Your task to perform on an android device: open app "NewsBreak: Local News & Alerts" Image 0: 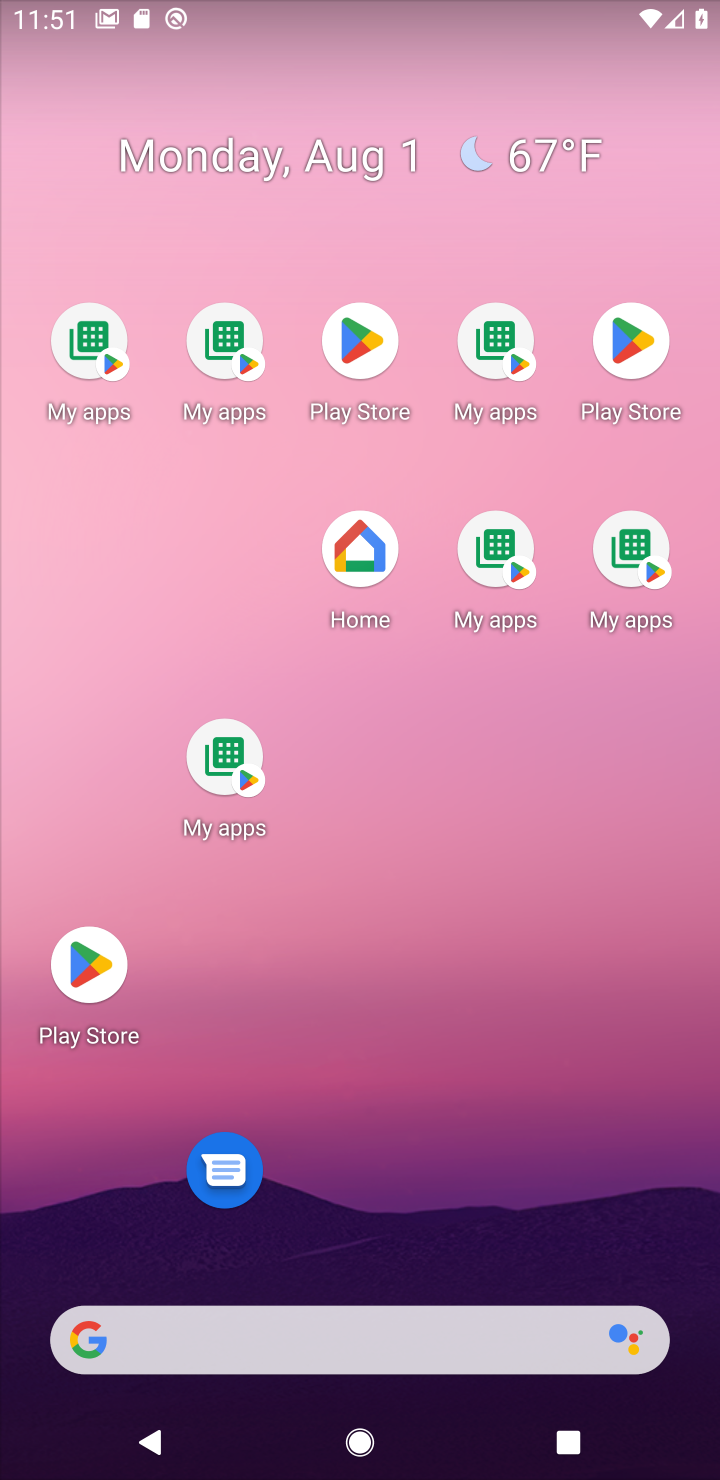
Step 0: drag from (313, 1220) to (369, 315)
Your task to perform on an android device: open app "NewsBreak: Local News & Alerts" Image 1: 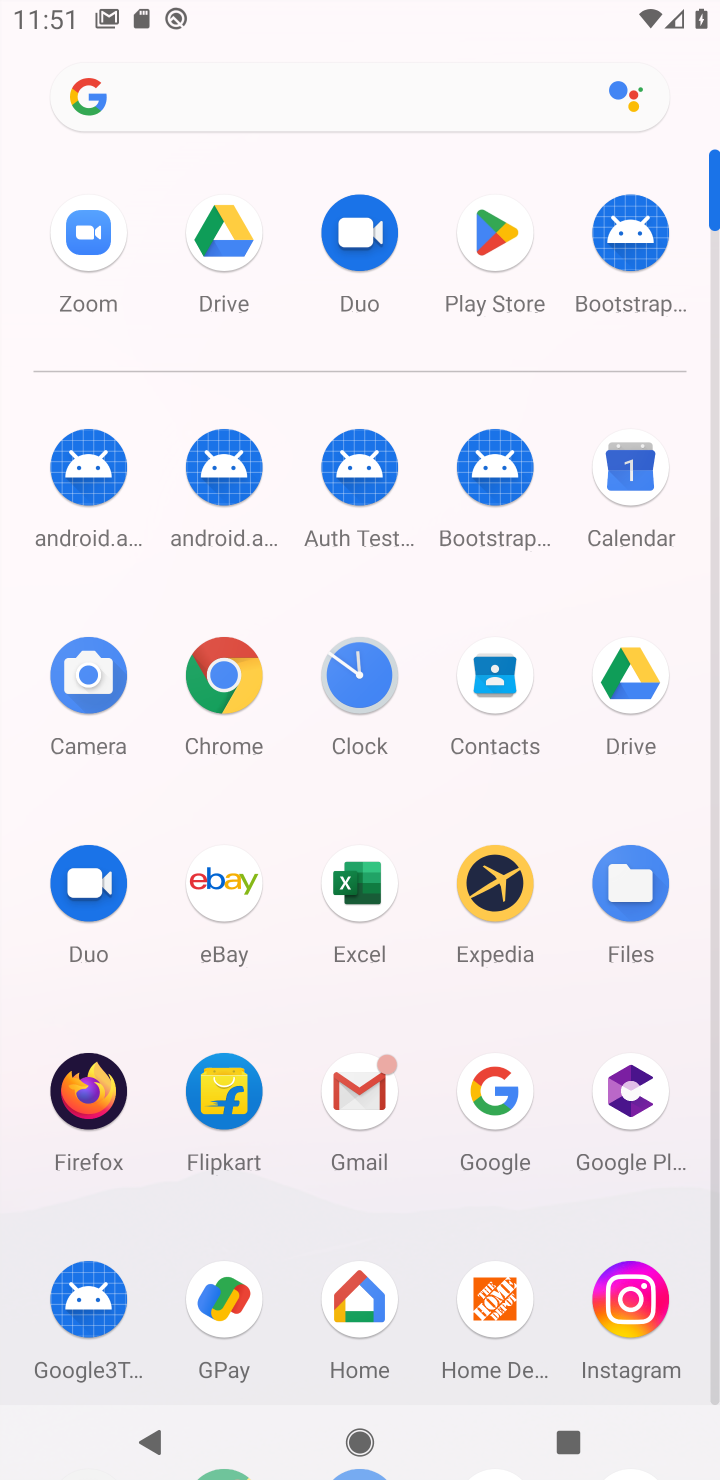
Step 1: click (508, 226)
Your task to perform on an android device: open app "NewsBreak: Local News & Alerts" Image 2: 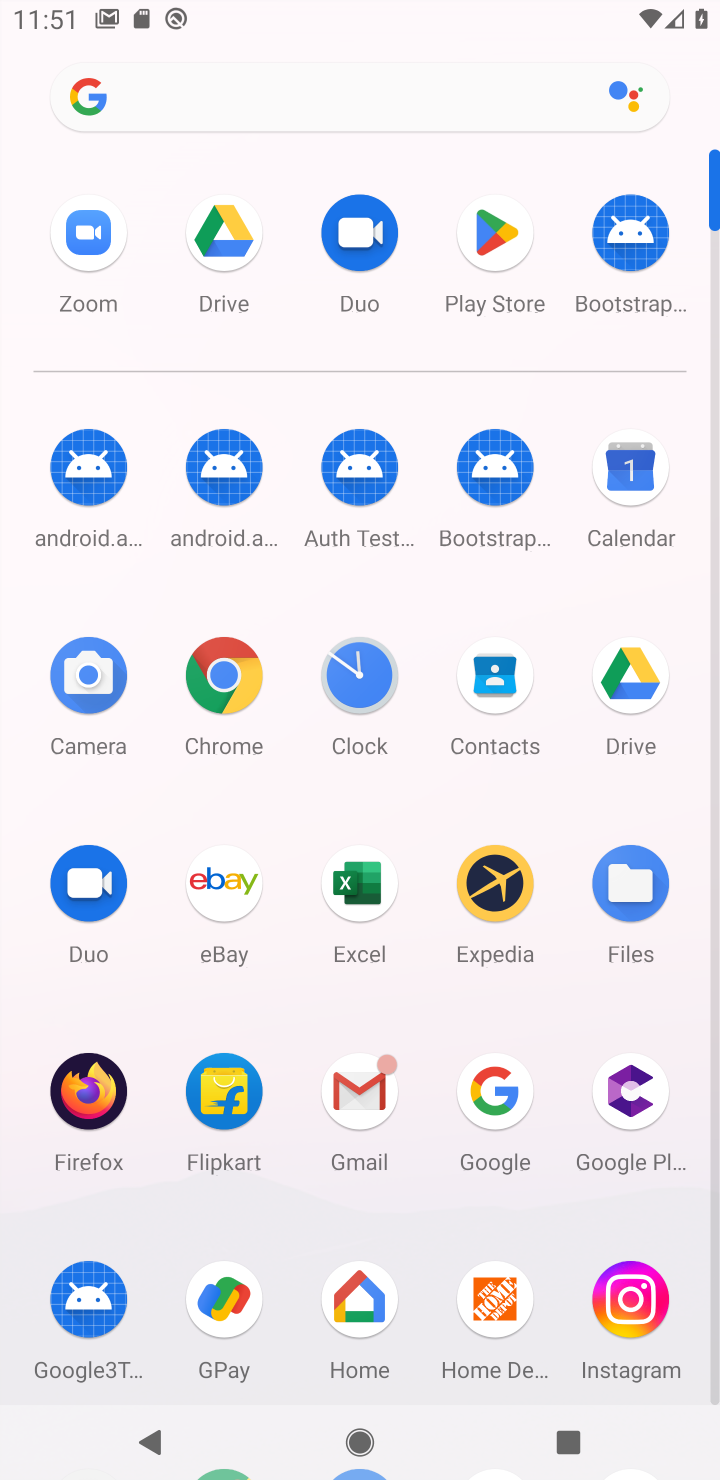
Step 2: click (508, 226)
Your task to perform on an android device: open app "NewsBreak: Local News & Alerts" Image 3: 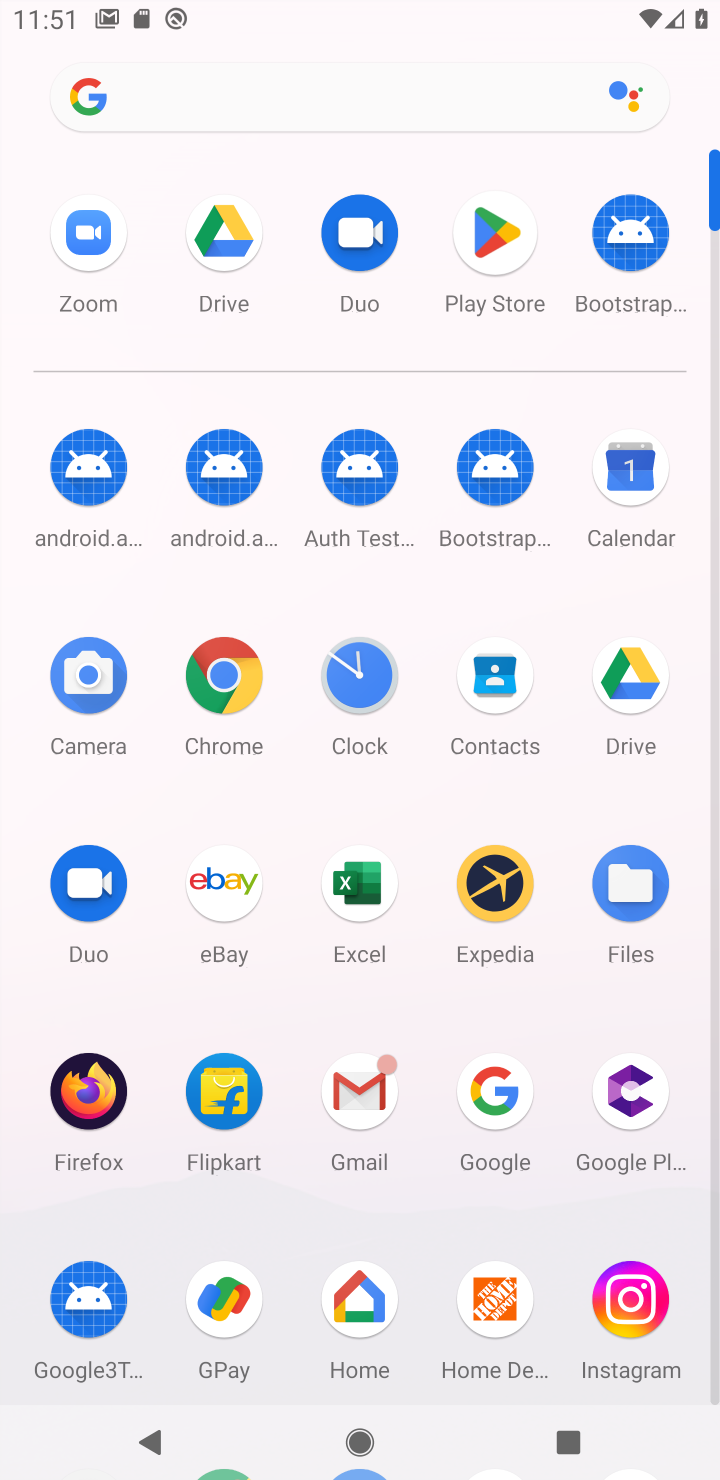
Step 3: click (510, 226)
Your task to perform on an android device: open app "NewsBreak: Local News & Alerts" Image 4: 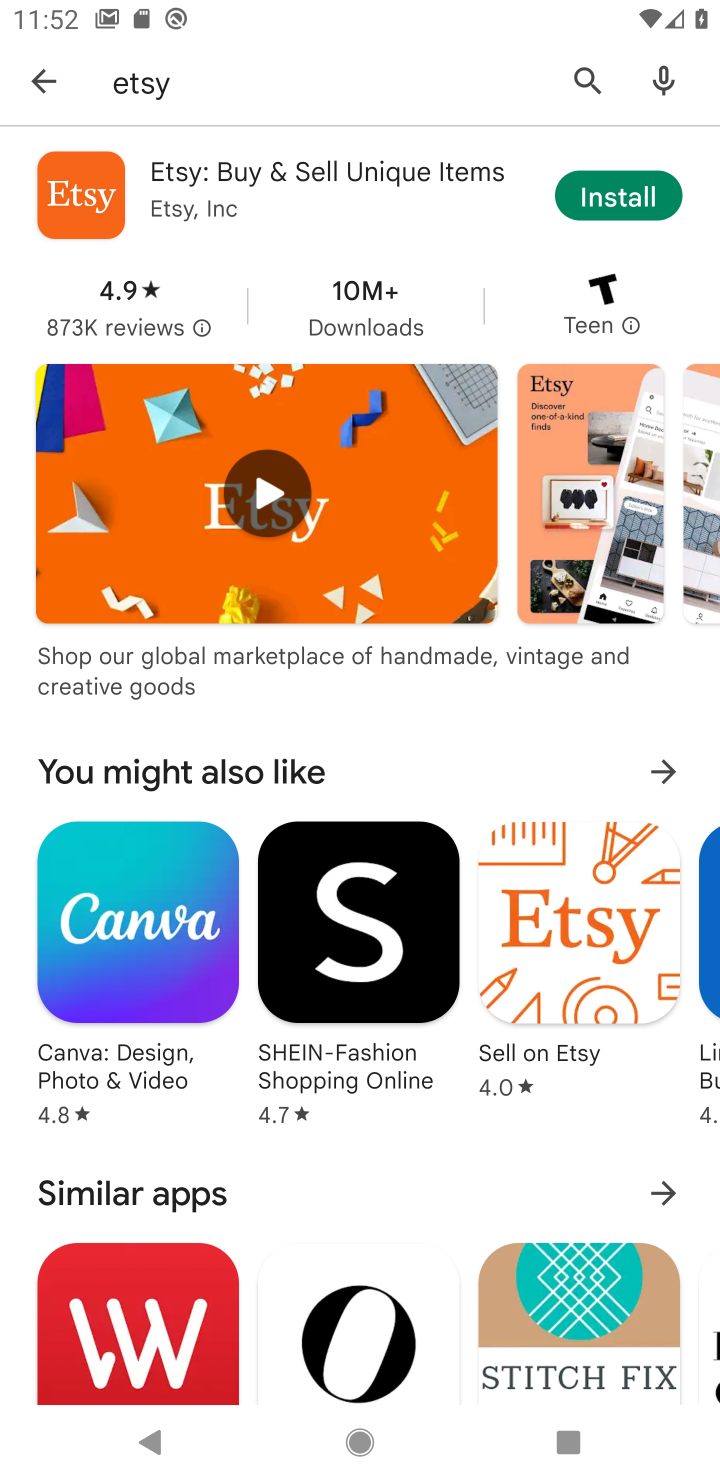
Step 4: click (583, 193)
Your task to perform on an android device: open app "NewsBreak: Local News & Alerts" Image 5: 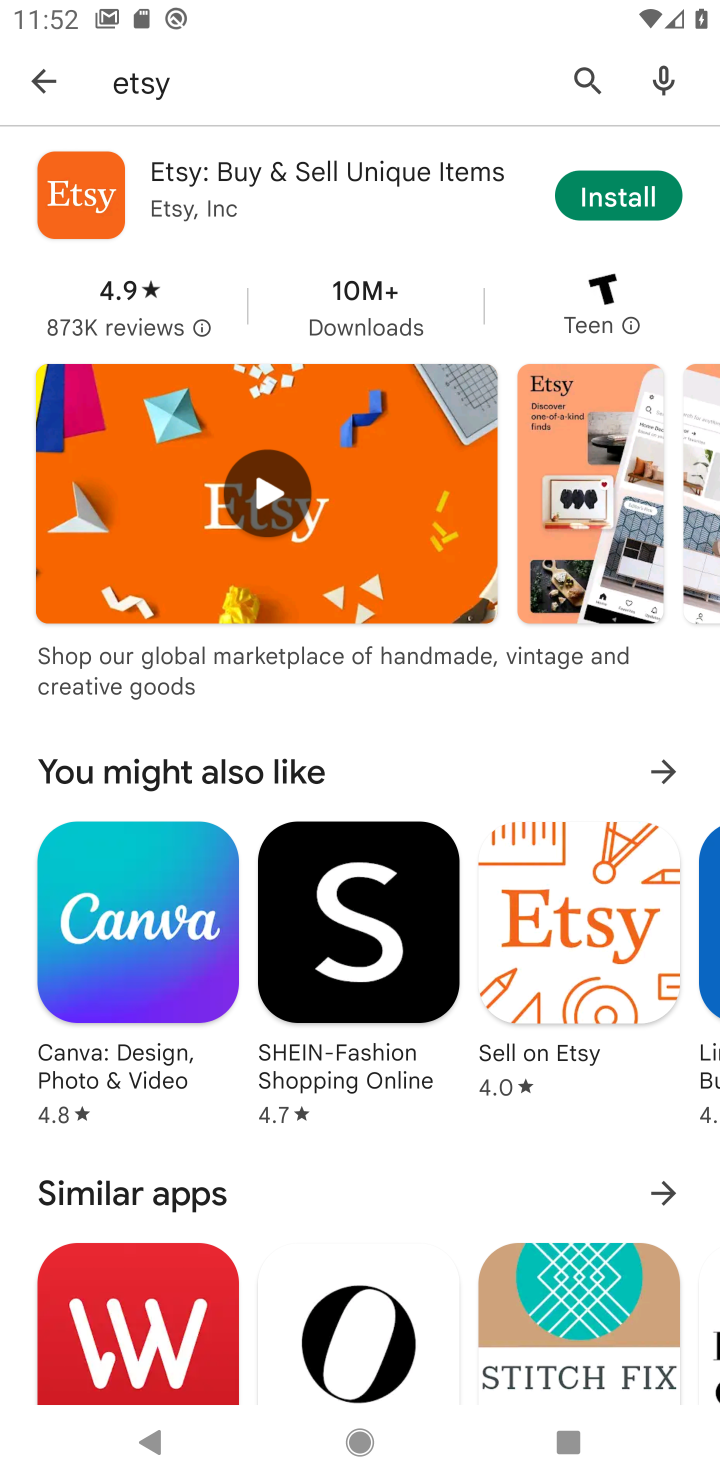
Step 5: click (587, 193)
Your task to perform on an android device: open app "NewsBreak: Local News & Alerts" Image 6: 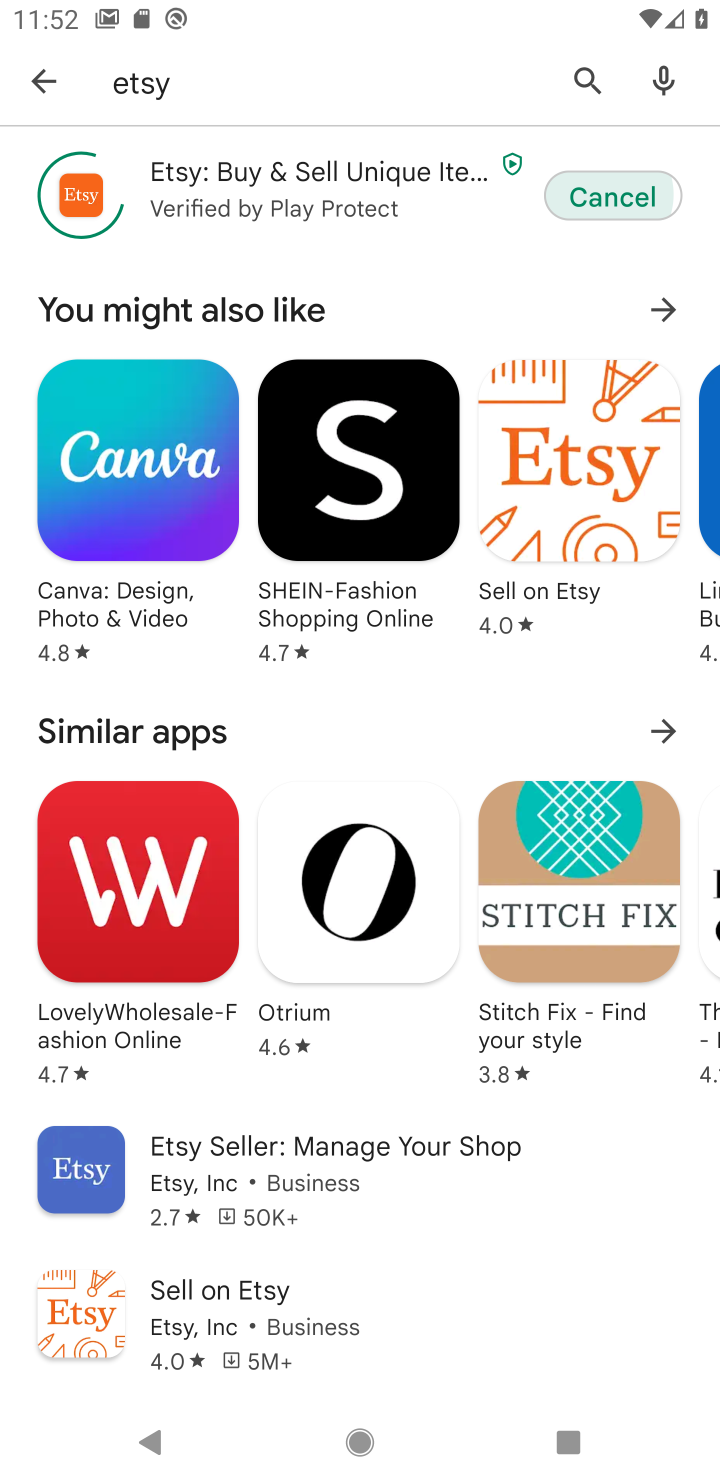
Step 6: click (596, 189)
Your task to perform on an android device: open app "NewsBreak: Local News & Alerts" Image 7: 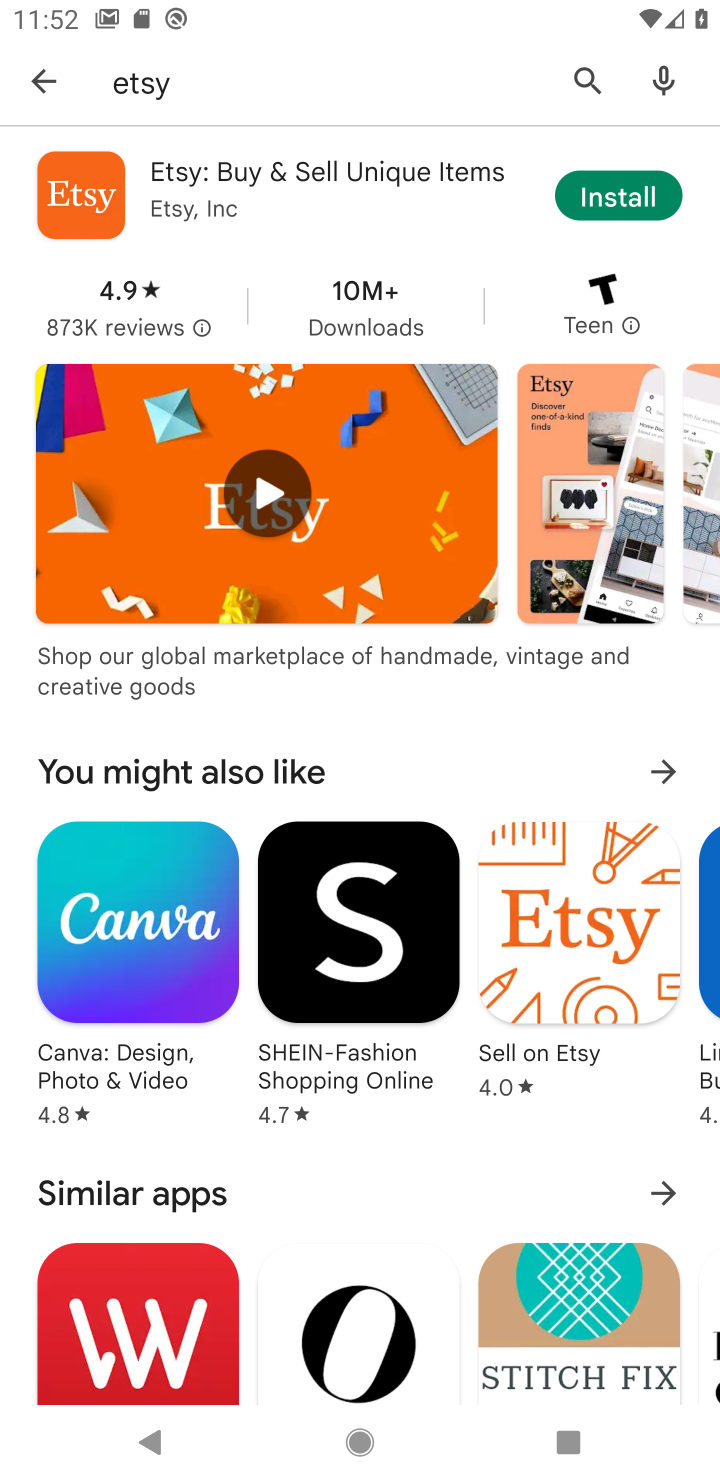
Step 7: click (594, 196)
Your task to perform on an android device: open app "NewsBreak: Local News & Alerts" Image 8: 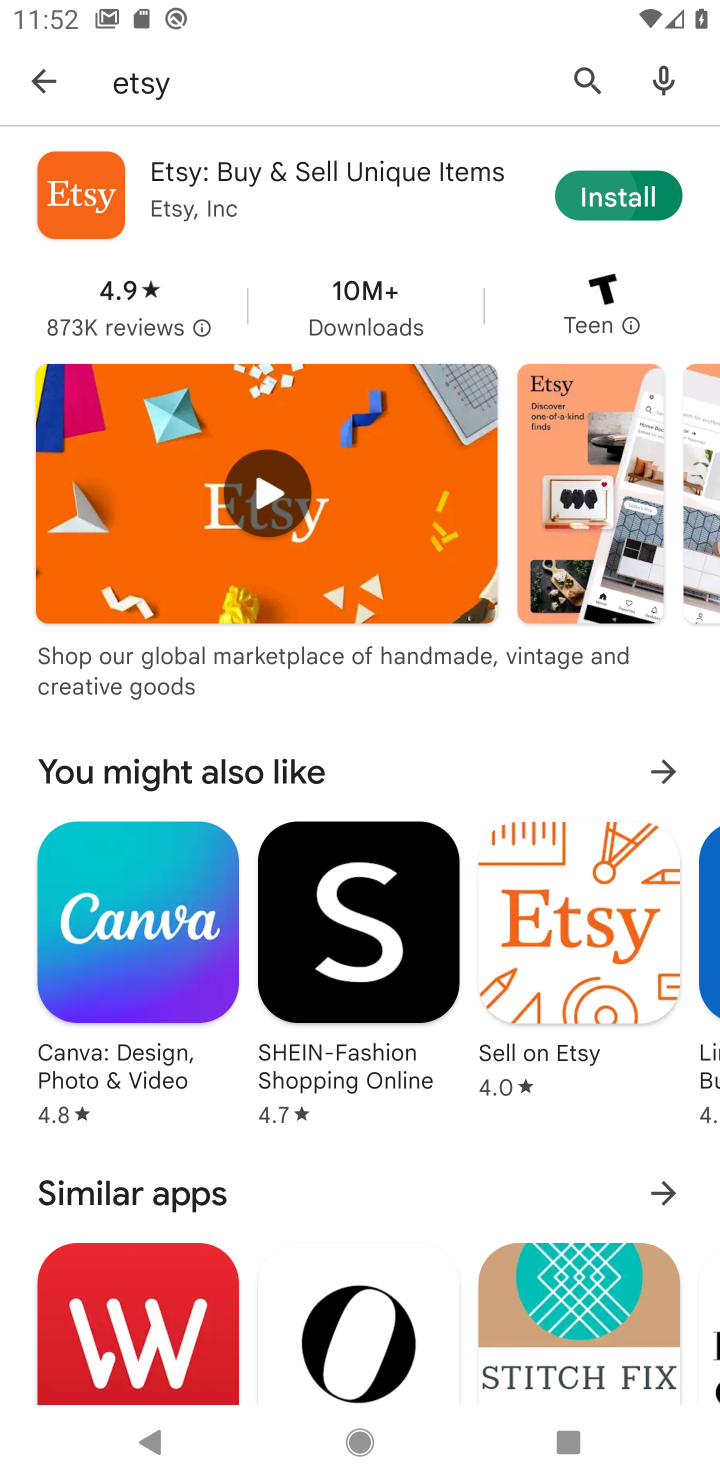
Step 8: click (596, 196)
Your task to perform on an android device: open app "NewsBreak: Local News & Alerts" Image 9: 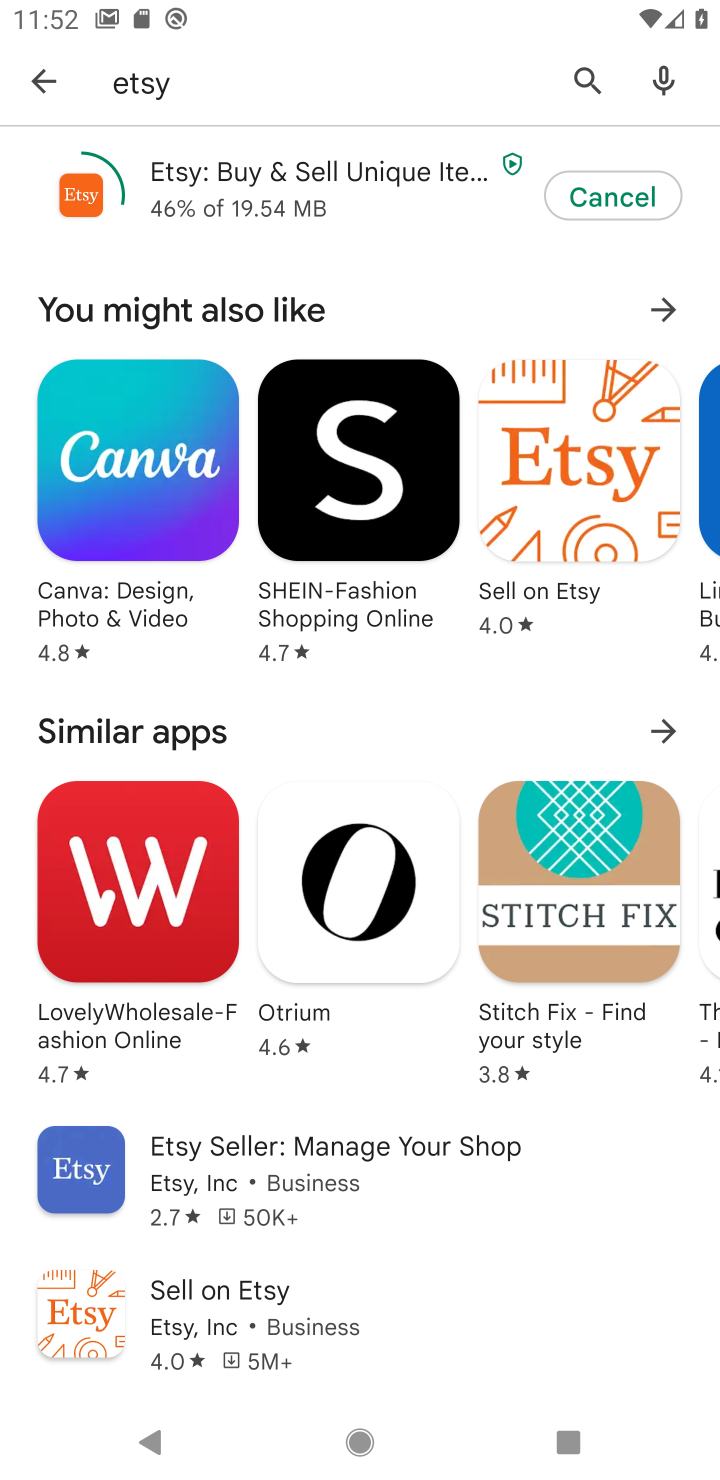
Step 9: task complete